Your task to perform on an android device: delete the emails in spam in the gmail app Image 0: 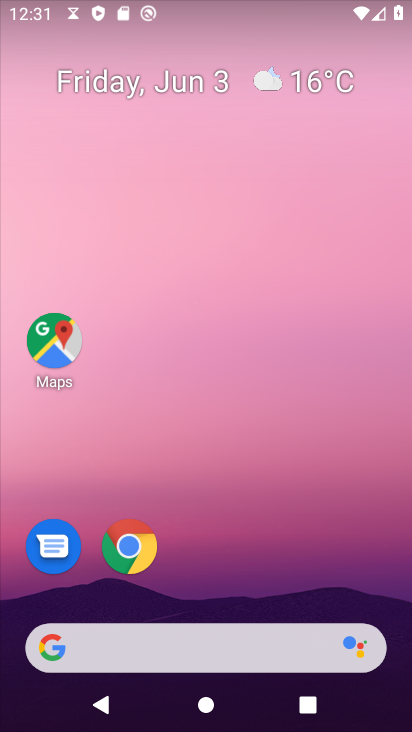
Step 0: drag from (232, 602) to (268, 68)
Your task to perform on an android device: delete the emails in spam in the gmail app Image 1: 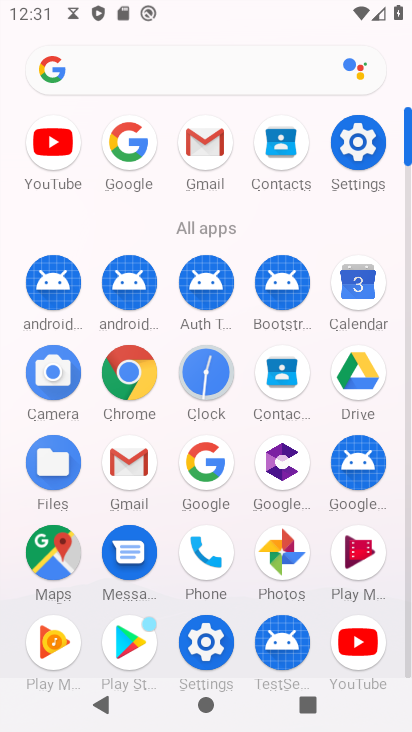
Step 1: click (212, 136)
Your task to perform on an android device: delete the emails in spam in the gmail app Image 2: 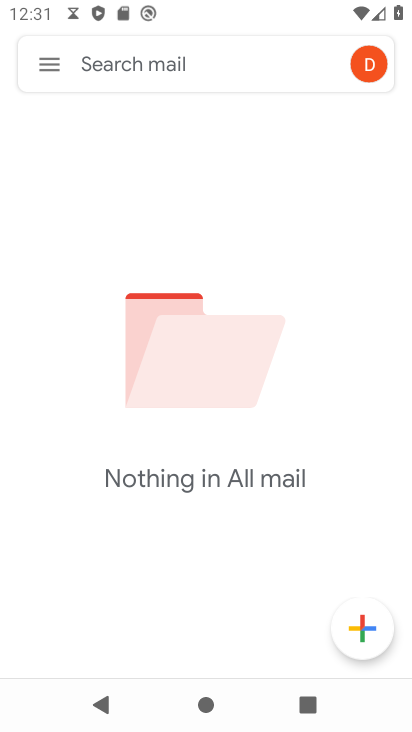
Step 2: click (48, 61)
Your task to perform on an android device: delete the emails in spam in the gmail app Image 3: 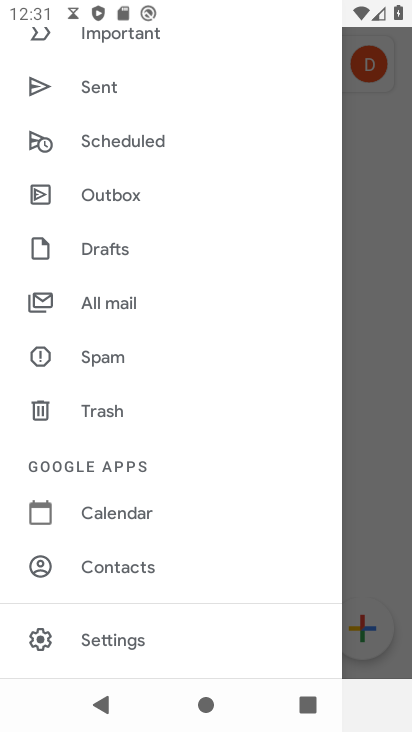
Step 3: click (119, 359)
Your task to perform on an android device: delete the emails in spam in the gmail app Image 4: 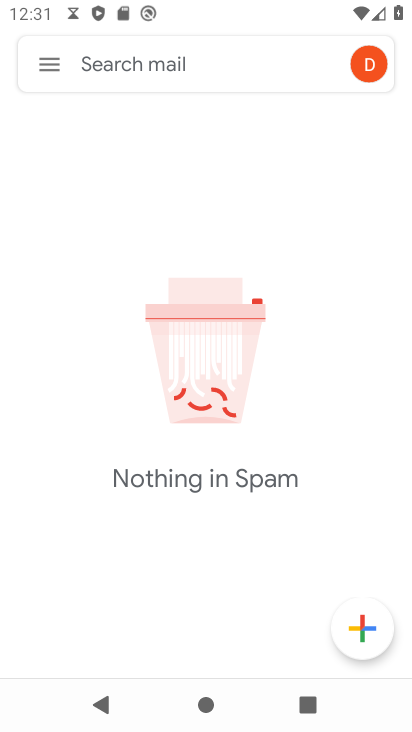
Step 4: task complete